Your task to perform on an android device: turn off notifications settings in the gmail app Image 0: 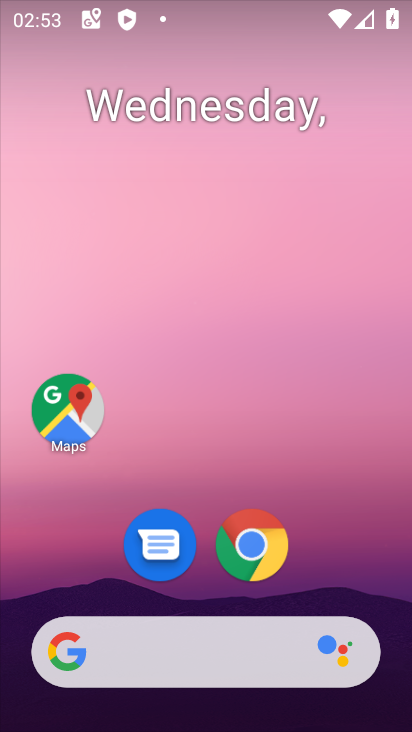
Step 0: press home button
Your task to perform on an android device: turn off notifications settings in the gmail app Image 1: 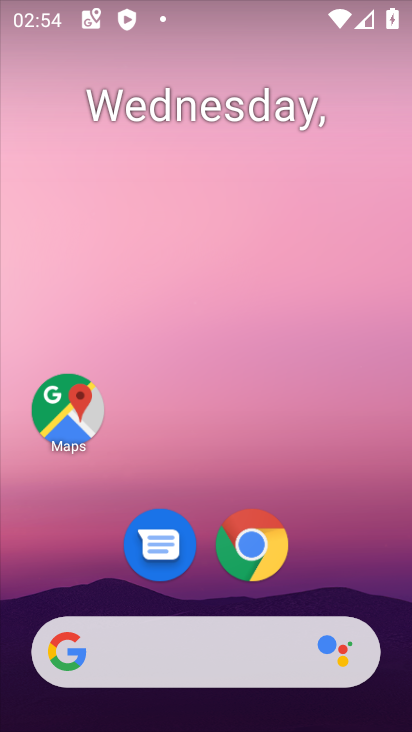
Step 1: drag from (189, 683) to (357, 73)
Your task to perform on an android device: turn off notifications settings in the gmail app Image 2: 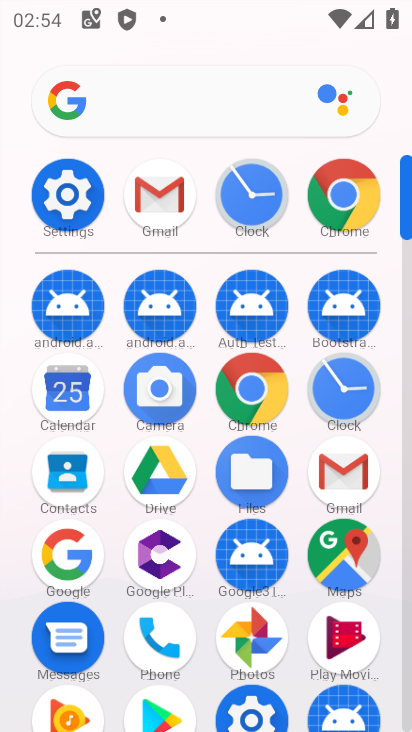
Step 2: click (164, 217)
Your task to perform on an android device: turn off notifications settings in the gmail app Image 3: 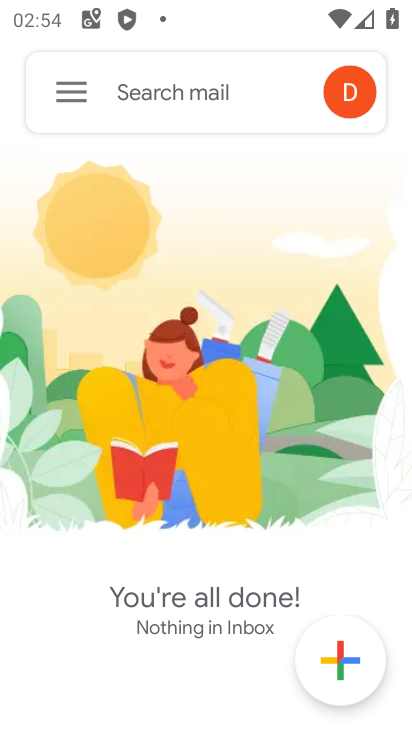
Step 3: click (78, 100)
Your task to perform on an android device: turn off notifications settings in the gmail app Image 4: 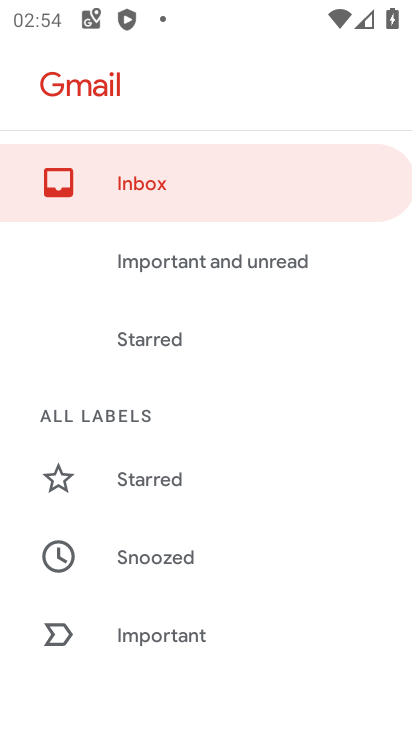
Step 4: drag from (202, 613) to (300, 116)
Your task to perform on an android device: turn off notifications settings in the gmail app Image 5: 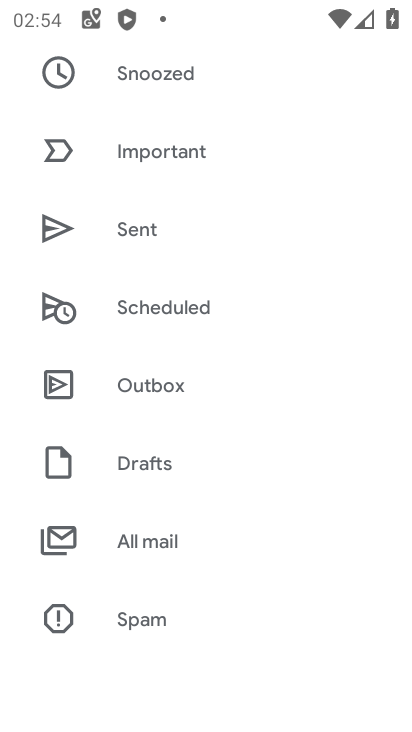
Step 5: drag from (203, 605) to (343, 70)
Your task to perform on an android device: turn off notifications settings in the gmail app Image 6: 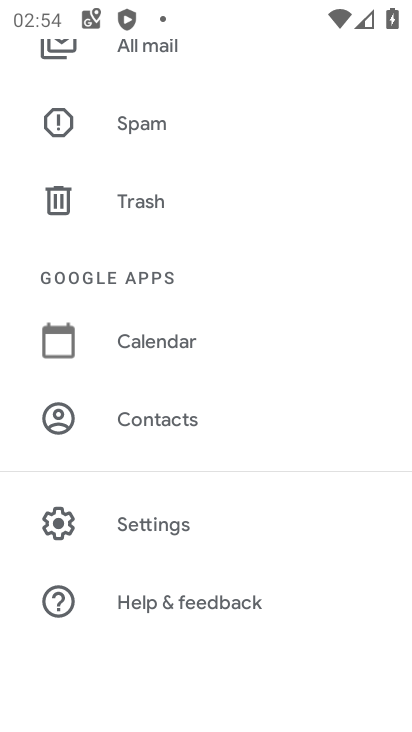
Step 6: click (178, 517)
Your task to perform on an android device: turn off notifications settings in the gmail app Image 7: 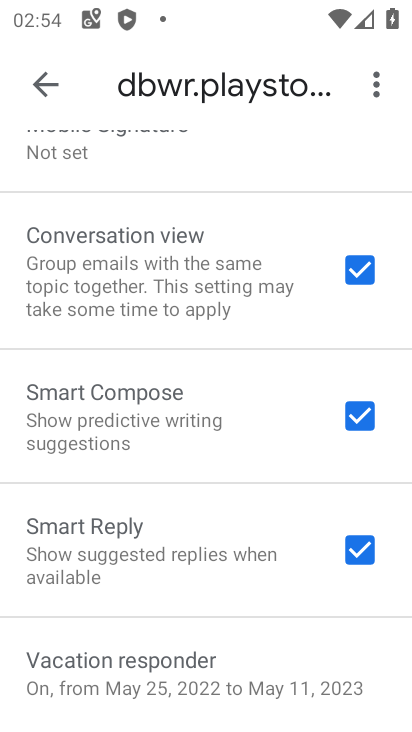
Step 7: drag from (269, 162) to (184, 616)
Your task to perform on an android device: turn off notifications settings in the gmail app Image 8: 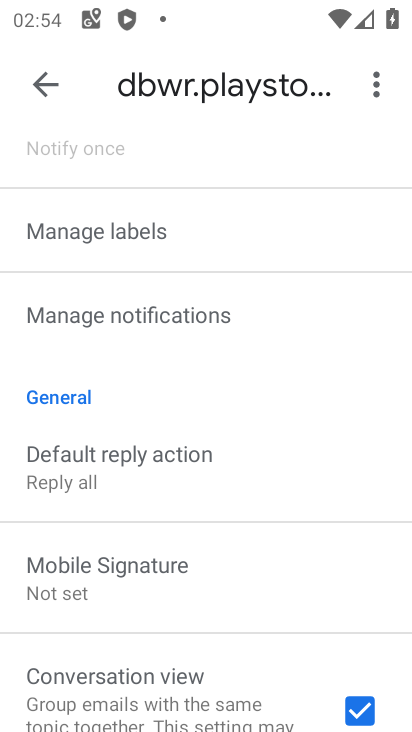
Step 8: drag from (245, 239) to (197, 607)
Your task to perform on an android device: turn off notifications settings in the gmail app Image 9: 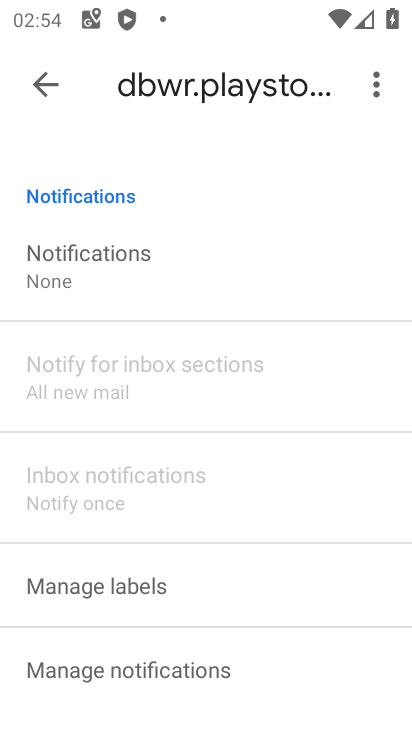
Step 9: click (120, 275)
Your task to perform on an android device: turn off notifications settings in the gmail app Image 10: 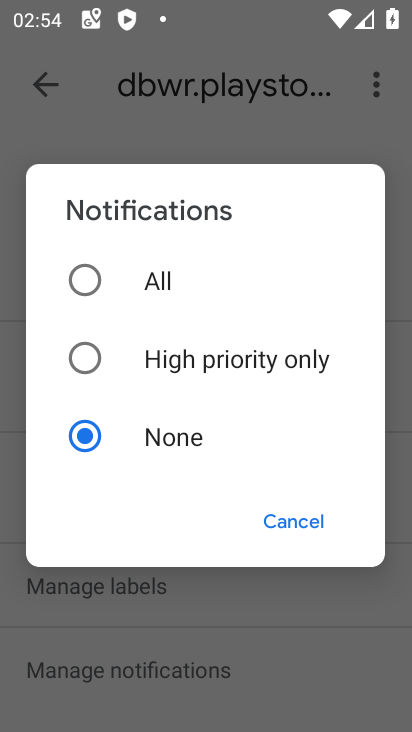
Step 10: task complete